Your task to perform on an android device: open wifi settings Image 0: 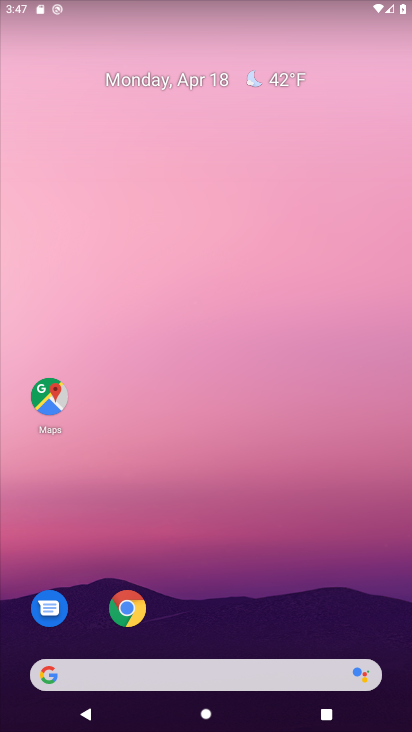
Step 0: drag from (371, 569) to (288, 165)
Your task to perform on an android device: open wifi settings Image 1: 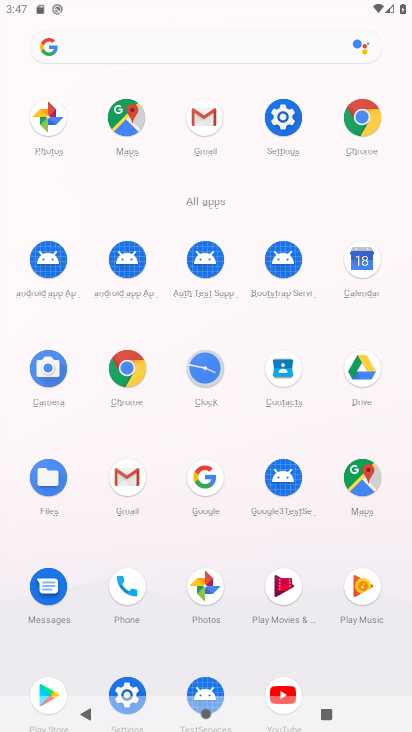
Step 1: click (290, 111)
Your task to perform on an android device: open wifi settings Image 2: 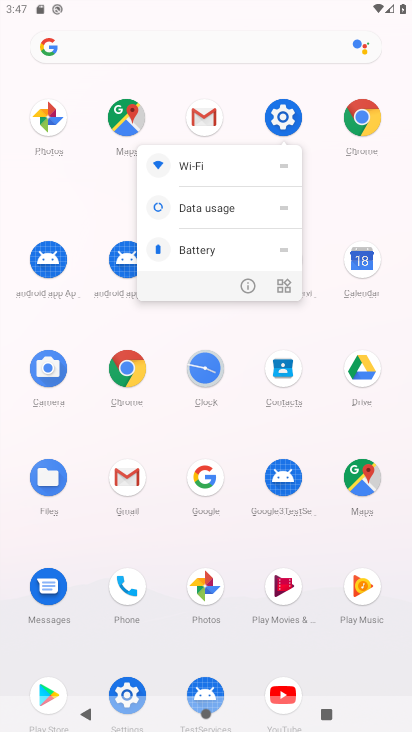
Step 2: click (225, 163)
Your task to perform on an android device: open wifi settings Image 3: 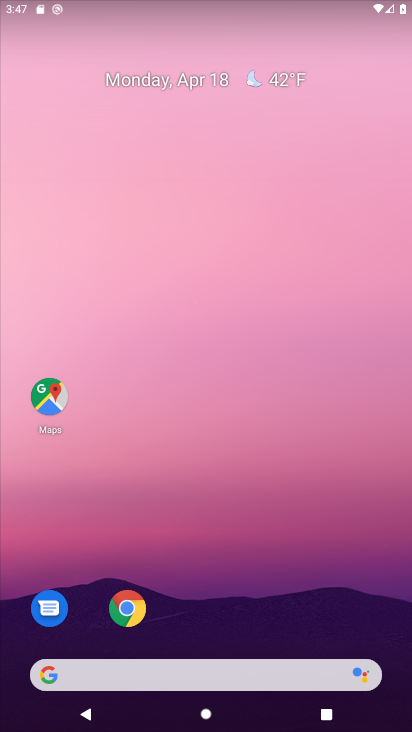
Step 3: drag from (324, 328) to (300, 217)
Your task to perform on an android device: open wifi settings Image 4: 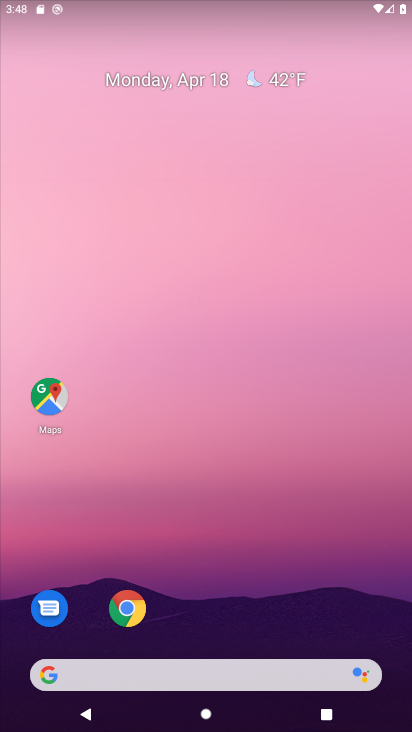
Step 4: drag from (364, 505) to (332, 89)
Your task to perform on an android device: open wifi settings Image 5: 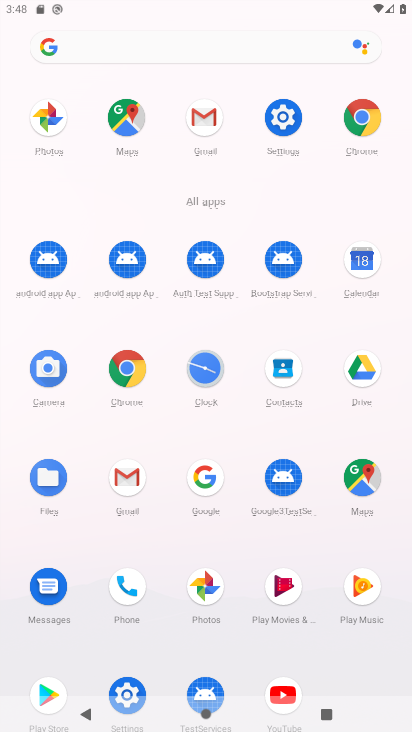
Step 5: click (286, 123)
Your task to perform on an android device: open wifi settings Image 6: 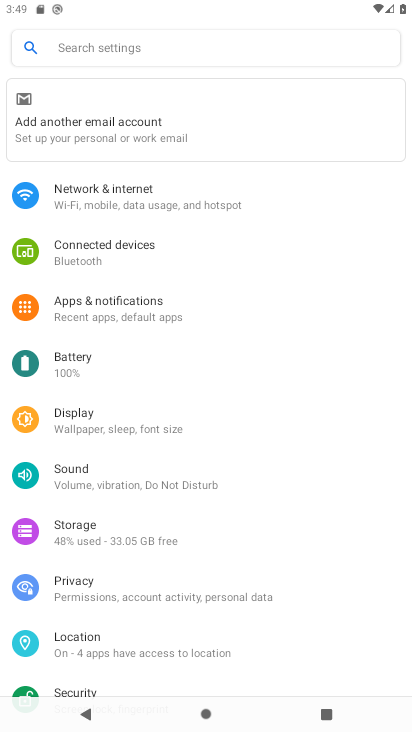
Step 6: click (86, 194)
Your task to perform on an android device: open wifi settings Image 7: 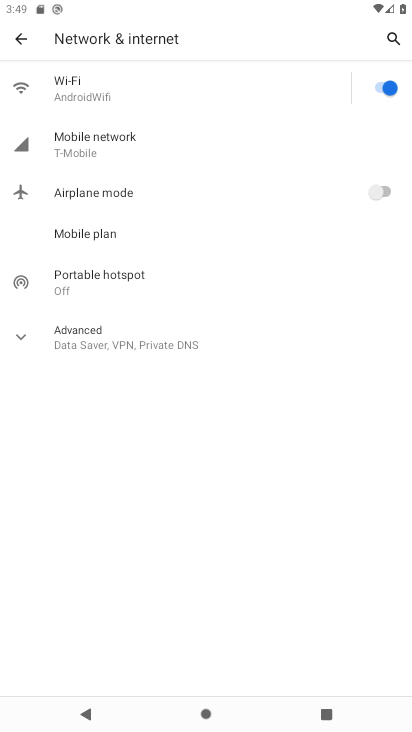
Step 7: task complete